Your task to perform on an android device: Add "dell alienware" to the cart on target Image 0: 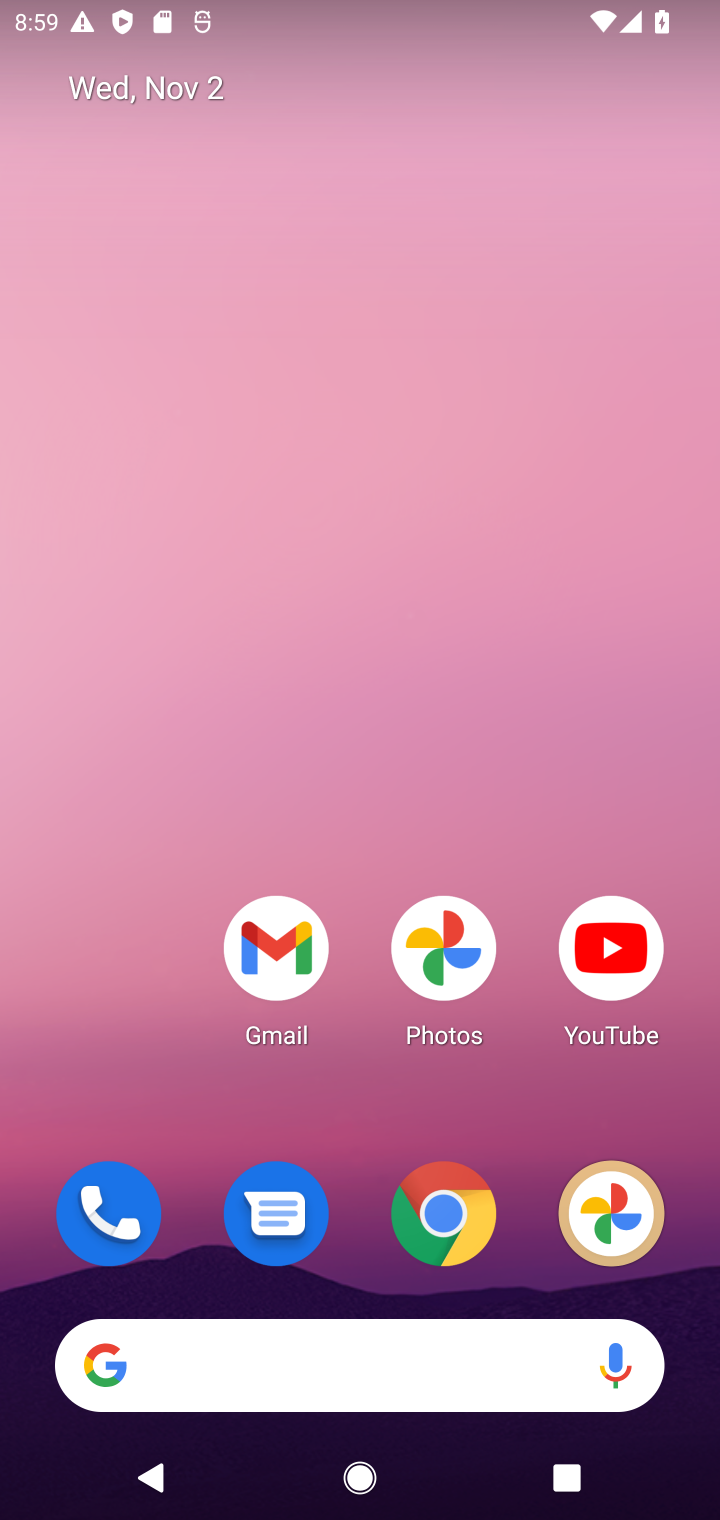
Step 0: click (448, 1229)
Your task to perform on an android device: Add "dell alienware" to the cart on target Image 1: 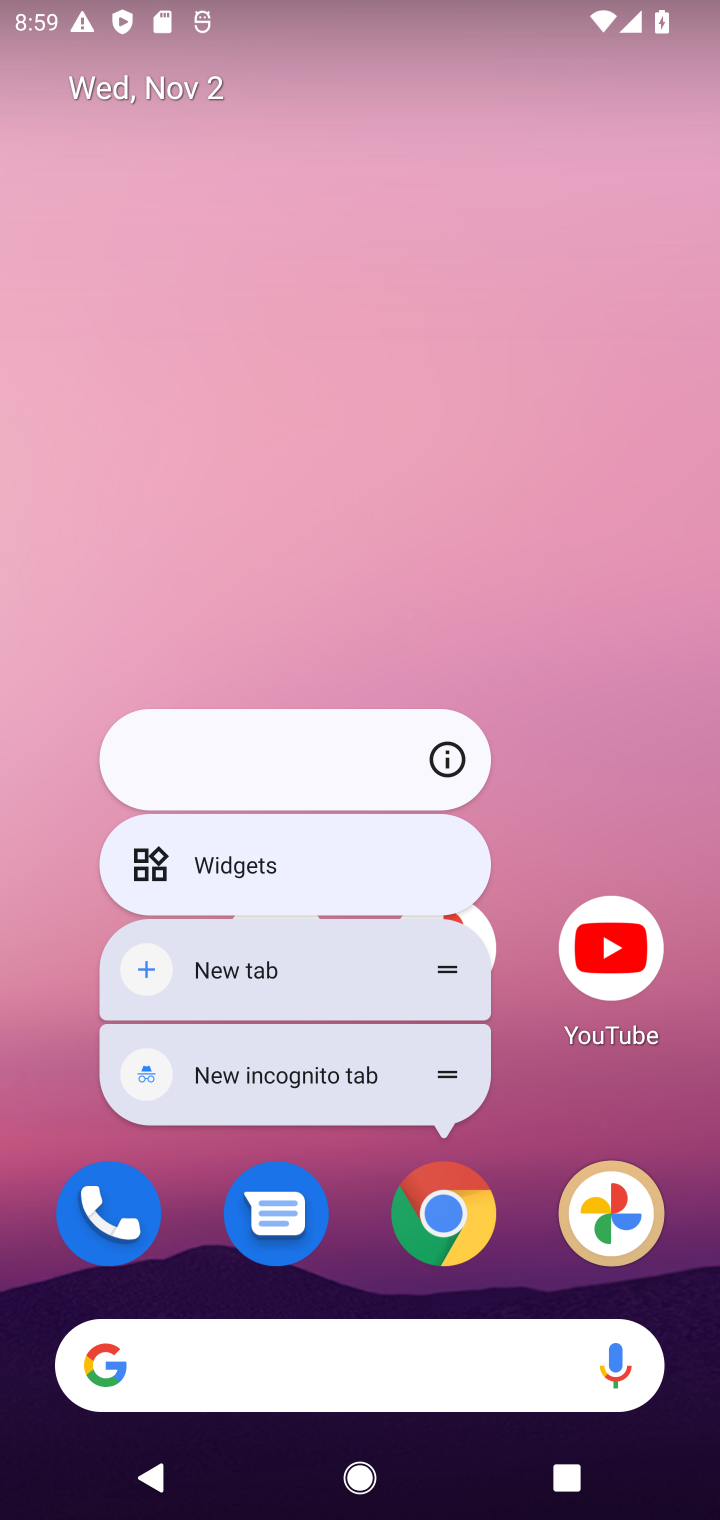
Step 1: click (448, 1229)
Your task to perform on an android device: Add "dell alienware" to the cart on target Image 2: 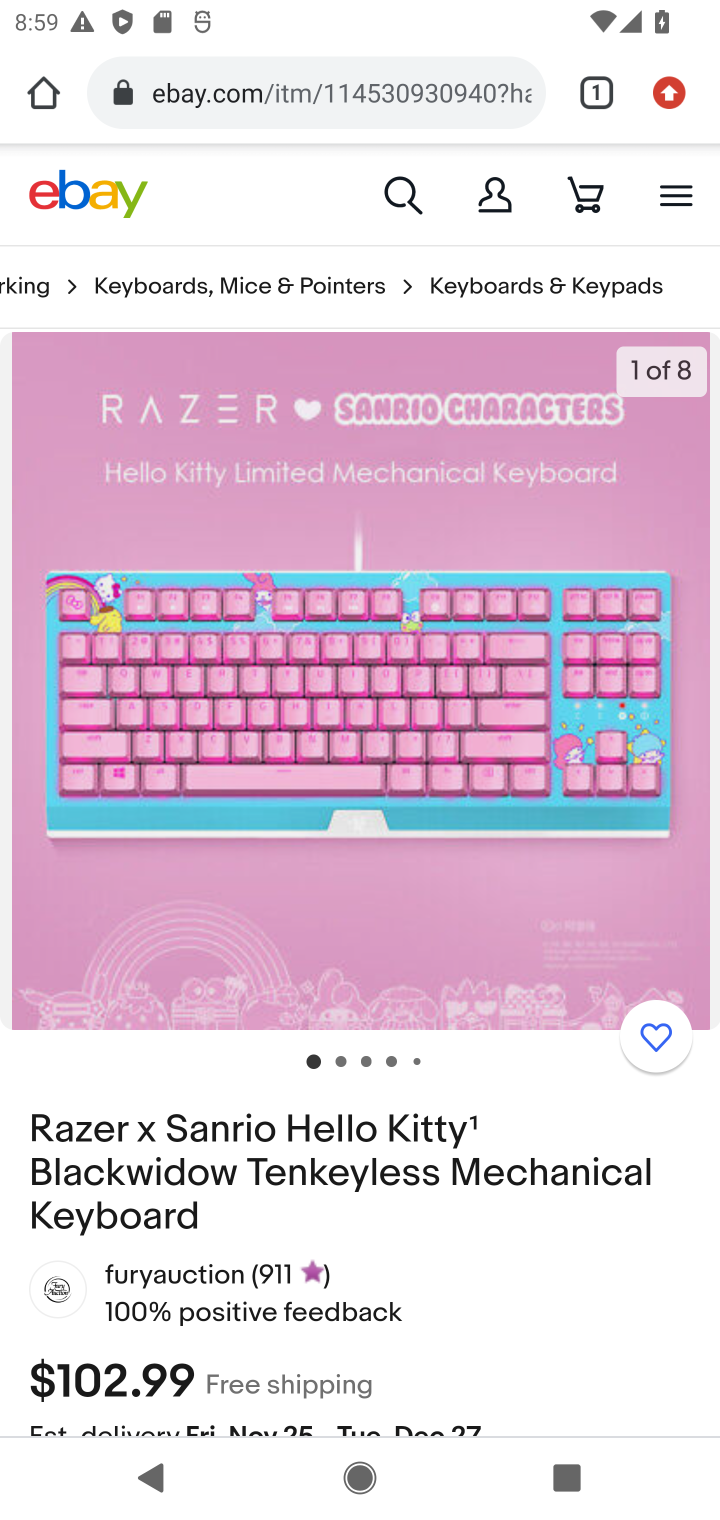
Step 2: click (341, 85)
Your task to perform on an android device: Add "dell alienware" to the cart on target Image 3: 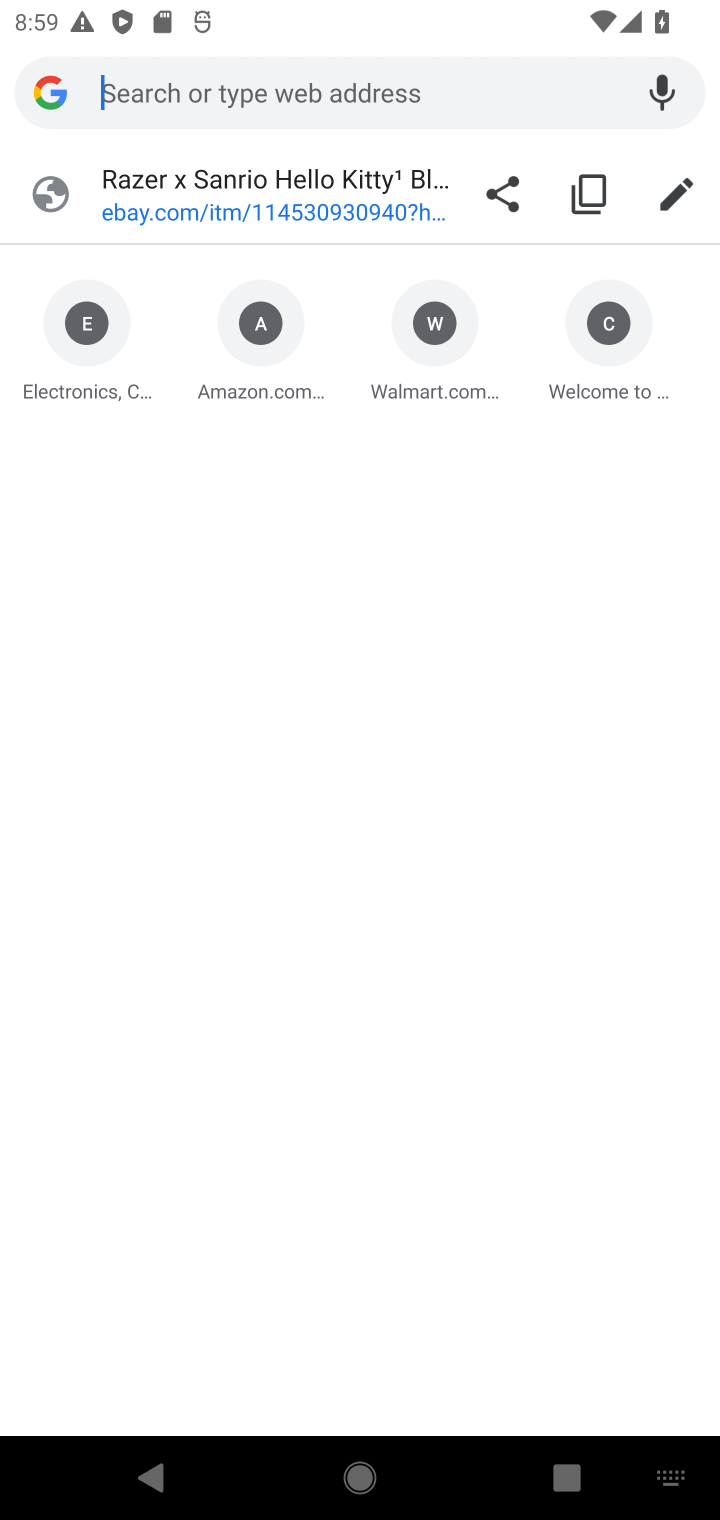
Step 3: type "target.com"
Your task to perform on an android device: Add "dell alienware" to the cart on target Image 4: 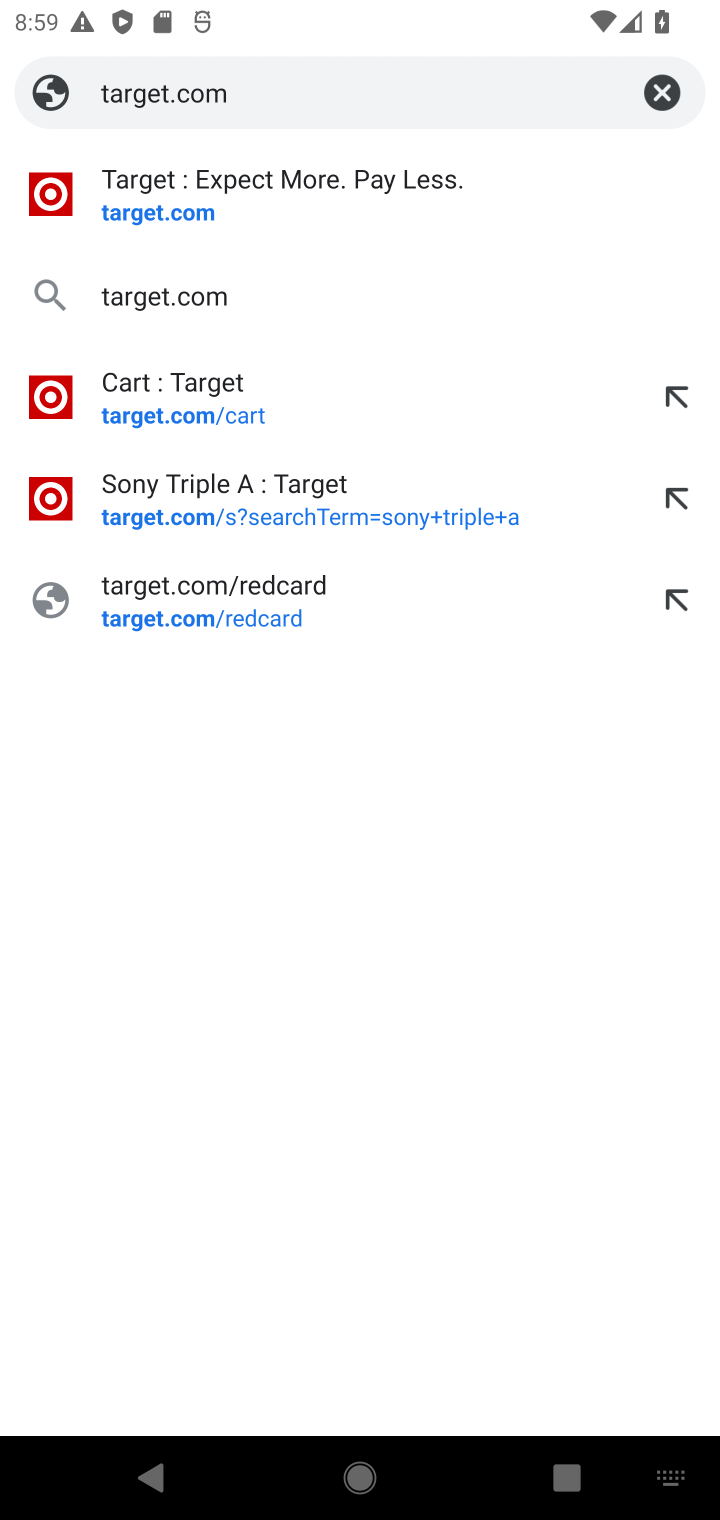
Step 4: click (166, 201)
Your task to perform on an android device: Add "dell alienware" to the cart on target Image 5: 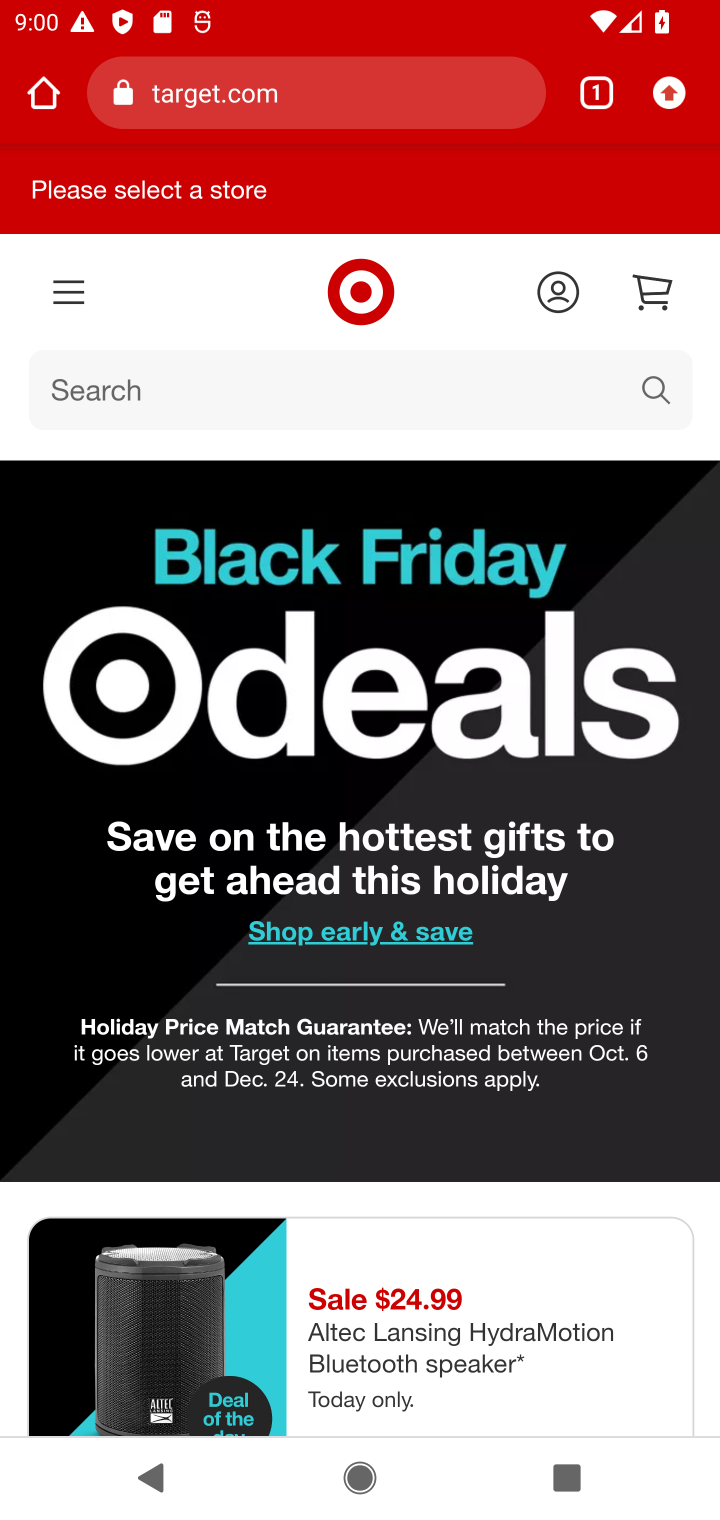
Step 5: click (589, 393)
Your task to perform on an android device: Add "dell alienware" to the cart on target Image 6: 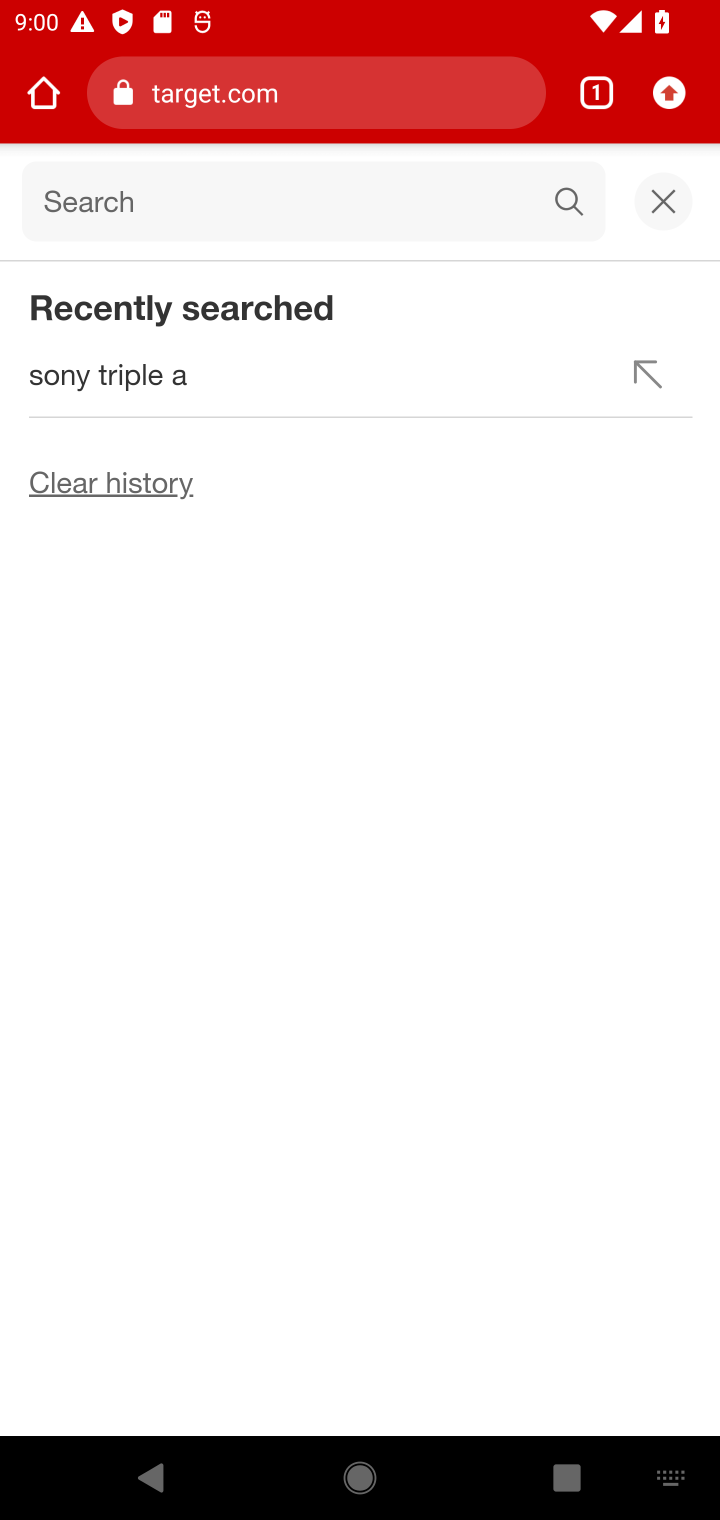
Step 6: type "dell alienware"
Your task to perform on an android device: Add "dell alienware" to the cart on target Image 7: 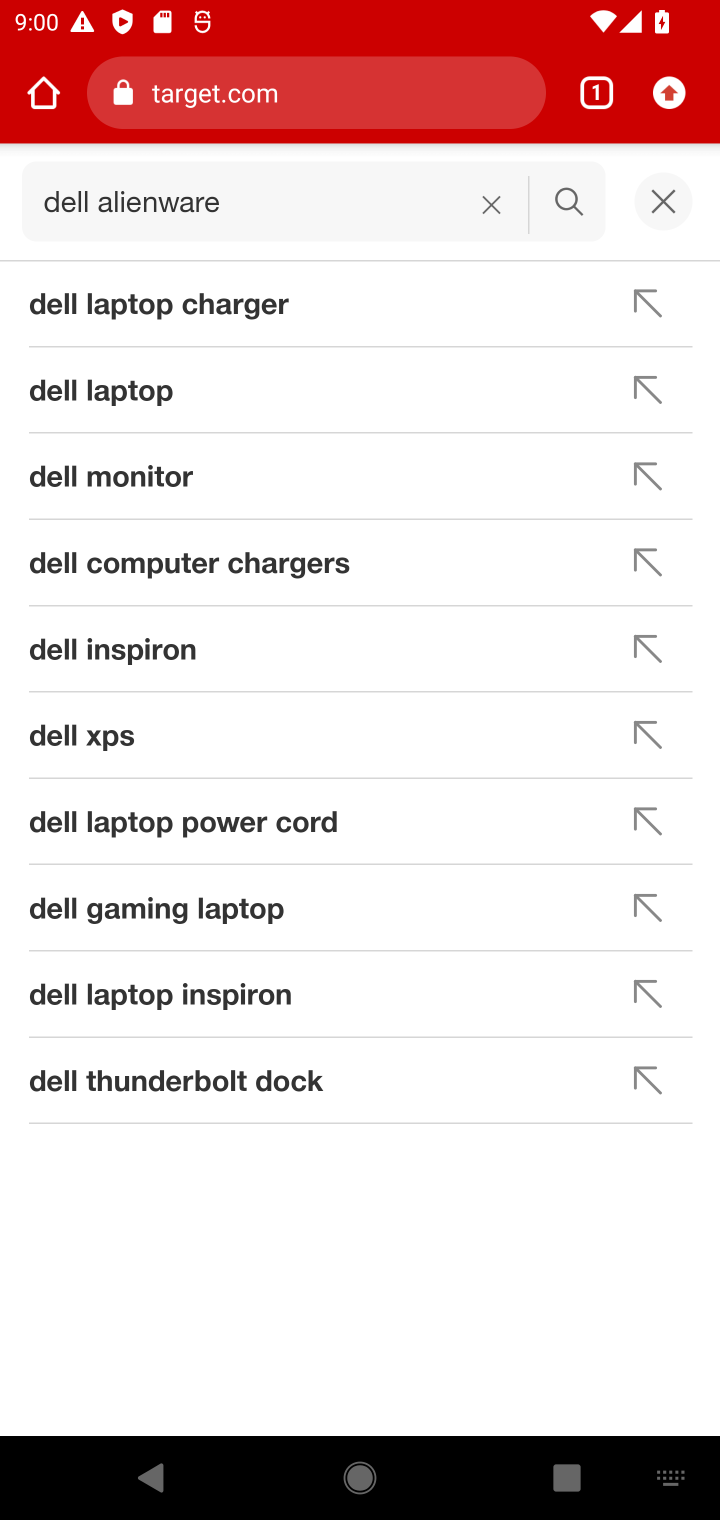
Step 7: click (555, 200)
Your task to perform on an android device: Add "dell alienware" to the cart on target Image 8: 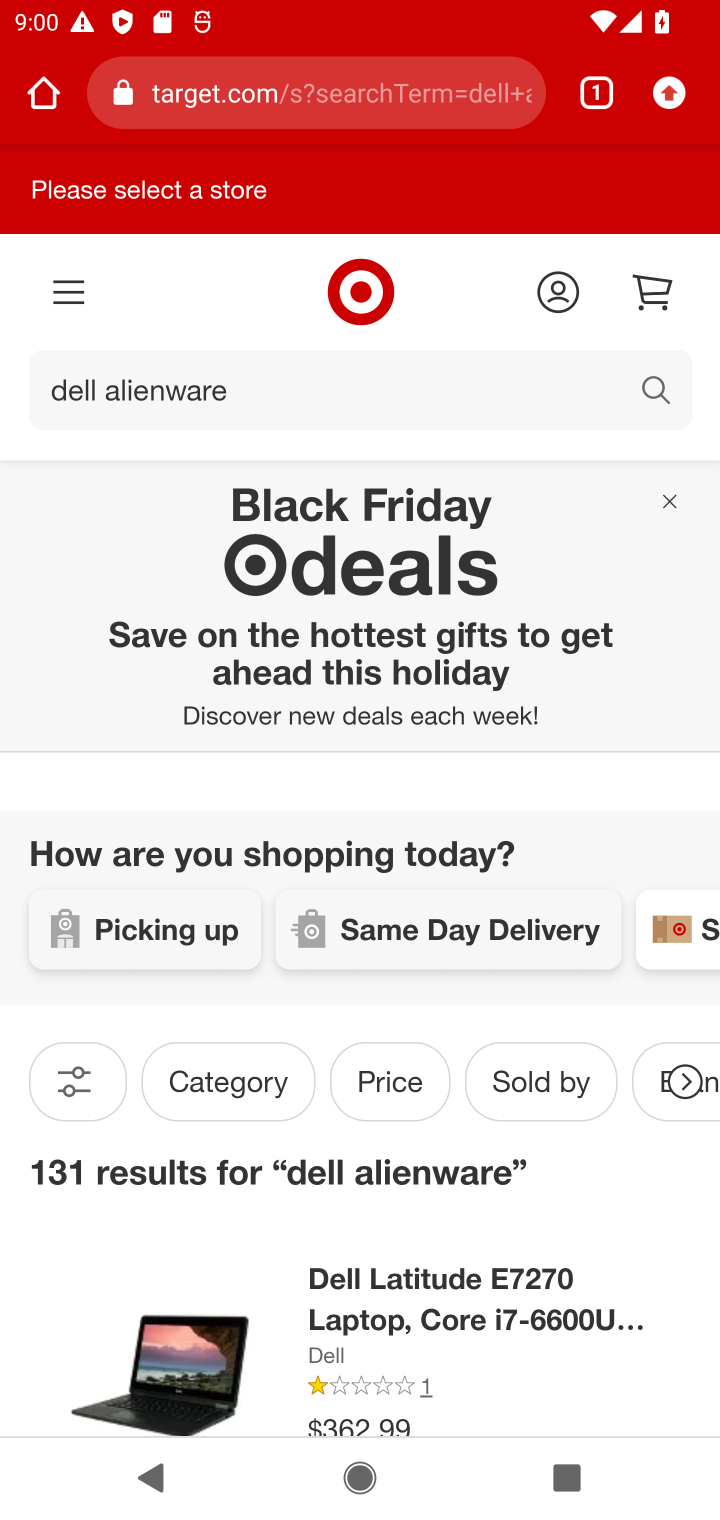
Step 8: task complete